Your task to perform on an android device: open device folders in google photos Image 0: 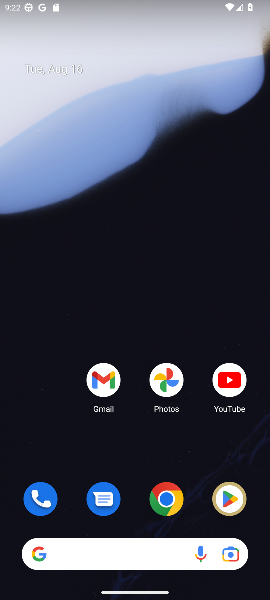
Step 0: press home button
Your task to perform on an android device: open device folders in google photos Image 1: 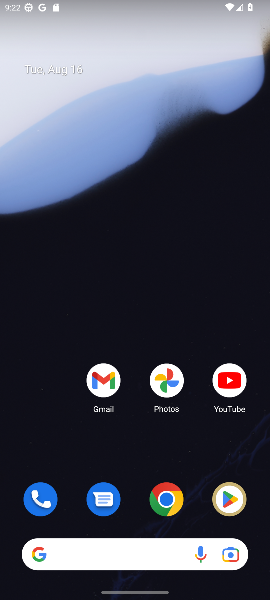
Step 1: press home button
Your task to perform on an android device: open device folders in google photos Image 2: 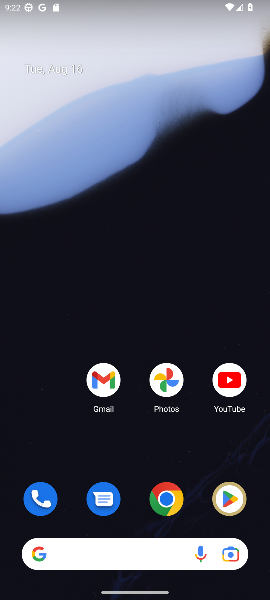
Step 2: press home button
Your task to perform on an android device: open device folders in google photos Image 3: 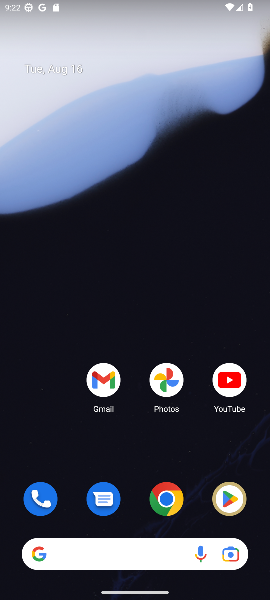
Step 3: press home button
Your task to perform on an android device: open device folders in google photos Image 4: 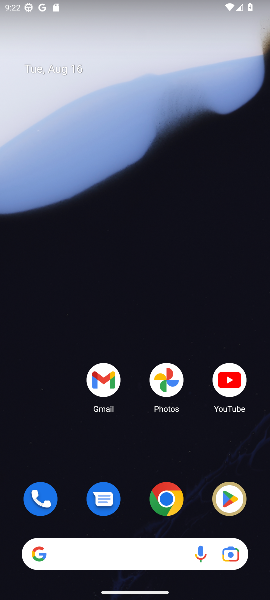
Step 4: drag from (144, 508) to (174, 210)
Your task to perform on an android device: open device folders in google photos Image 5: 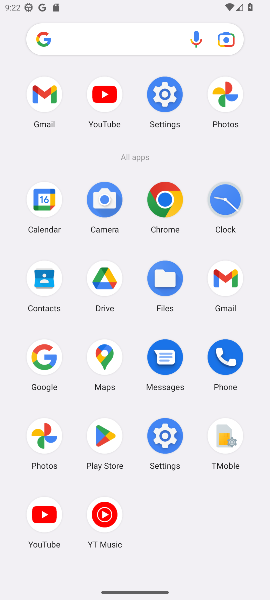
Step 5: click (32, 452)
Your task to perform on an android device: open device folders in google photos Image 6: 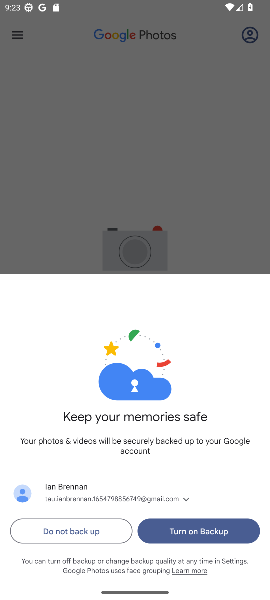
Step 6: click (96, 528)
Your task to perform on an android device: open device folders in google photos Image 7: 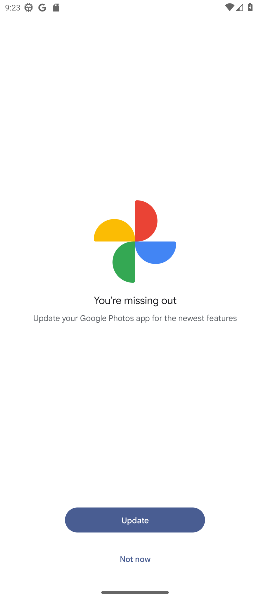
Step 7: click (131, 525)
Your task to perform on an android device: open device folders in google photos Image 8: 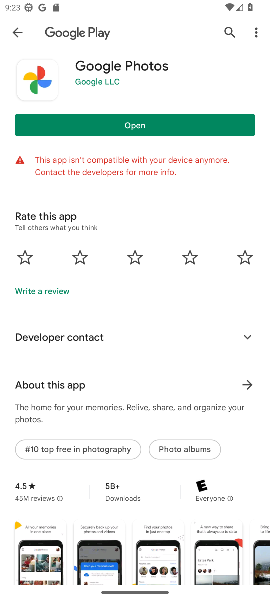
Step 8: click (40, 128)
Your task to perform on an android device: open device folders in google photos Image 9: 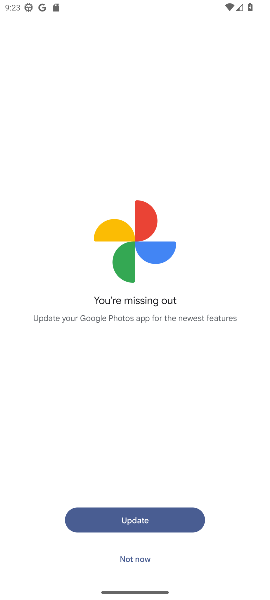
Step 9: click (139, 558)
Your task to perform on an android device: open device folders in google photos Image 10: 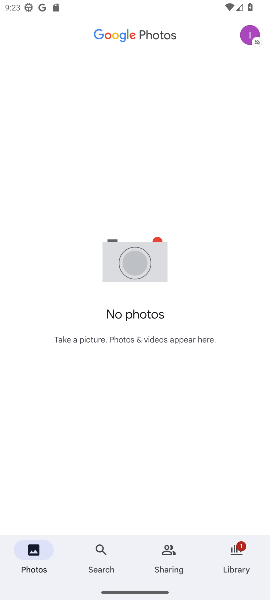
Step 10: task complete